Your task to perform on an android device: Go to privacy settings Image 0: 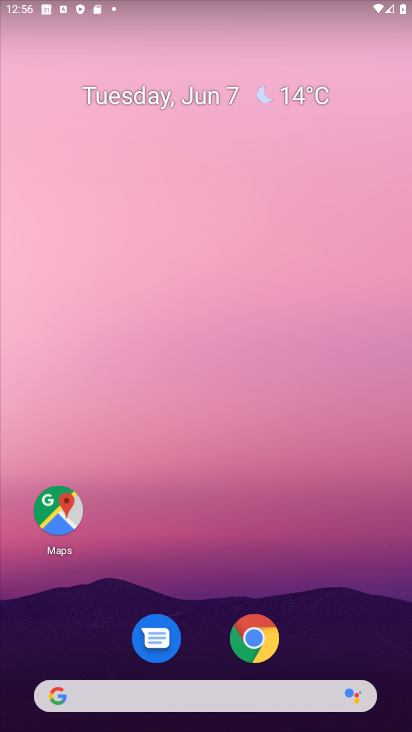
Step 0: drag from (213, 526) to (407, 218)
Your task to perform on an android device: Go to privacy settings Image 1: 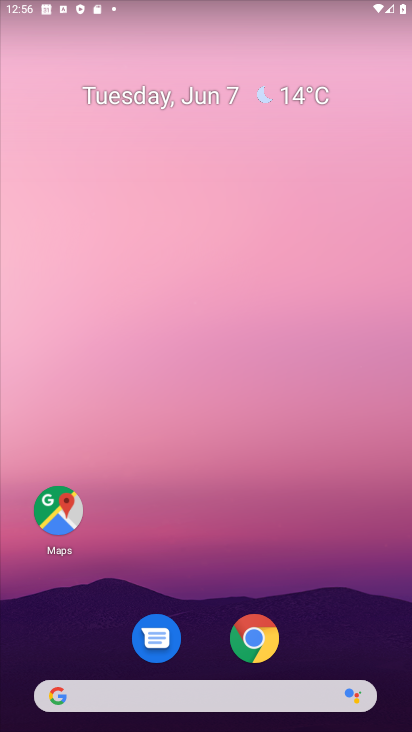
Step 1: click (343, 268)
Your task to perform on an android device: Go to privacy settings Image 2: 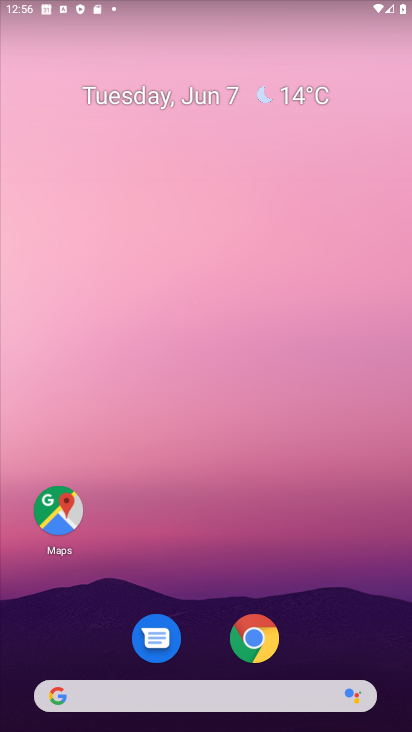
Step 2: drag from (291, 602) to (339, 180)
Your task to perform on an android device: Go to privacy settings Image 3: 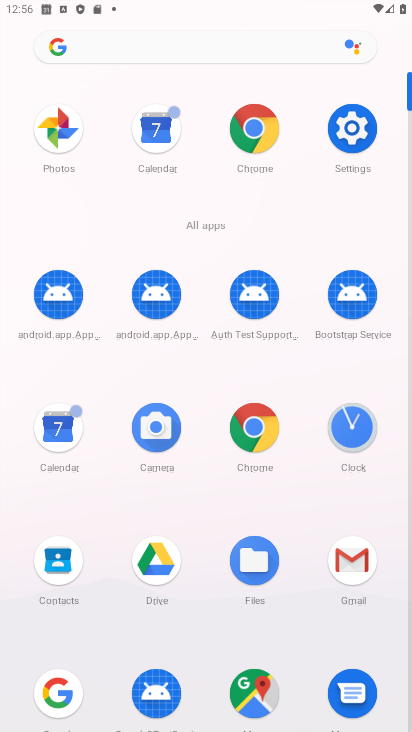
Step 3: click (357, 134)
Your task to perform on an android device: Go to privacy settings Image 4: 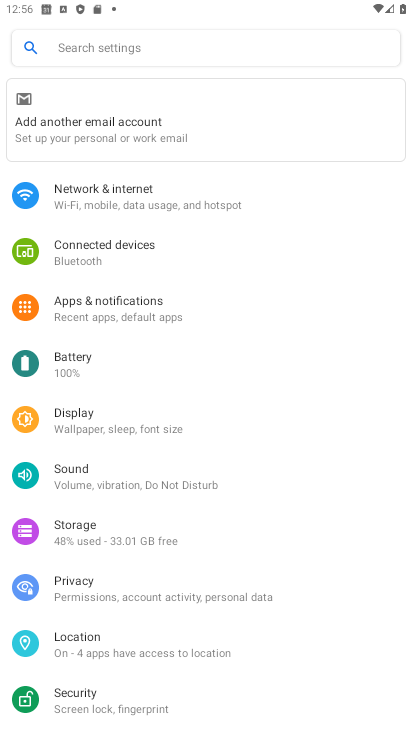
Step 4: click (119, 600)
Your task to perform on an android device: Go to privacy settings Image 5: 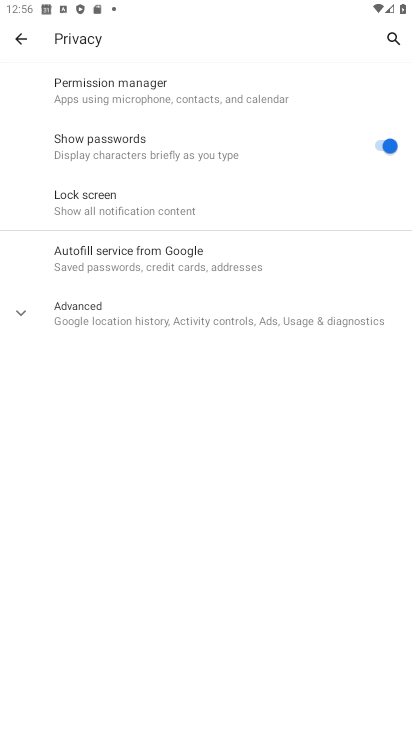
Step 5: task complete